Your task to perform on an android device: search for starred emails in the gmail app Image 0: 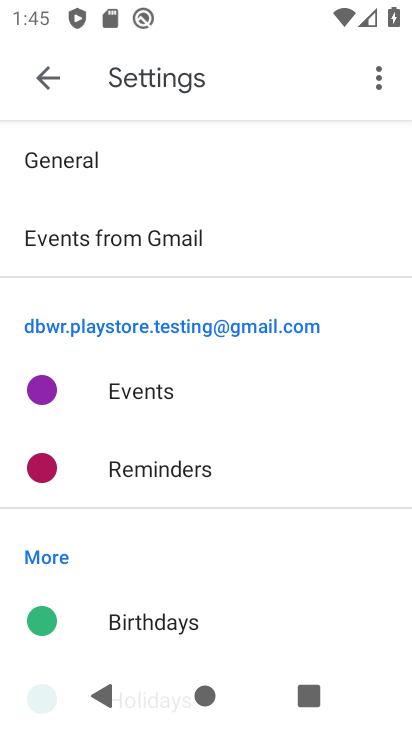
Step 0: drag from (188, 568) to (292, 219)
Your task to perform on an android device: search for starred emails in the gmail app Image 1: 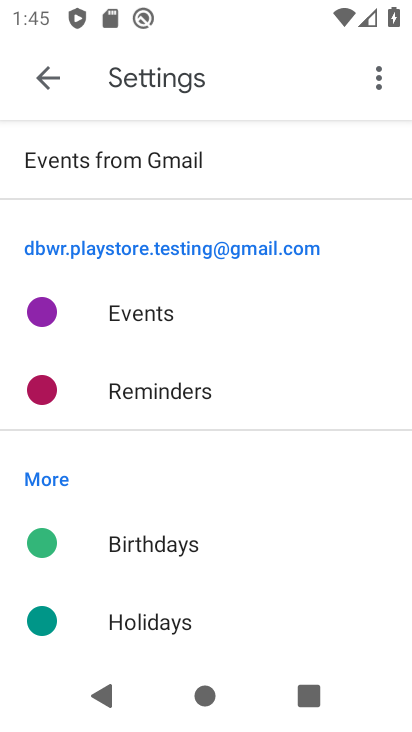
Step 1: press home button
Your task to perform on an android device: search for starred emails in the gmail app Image 2: 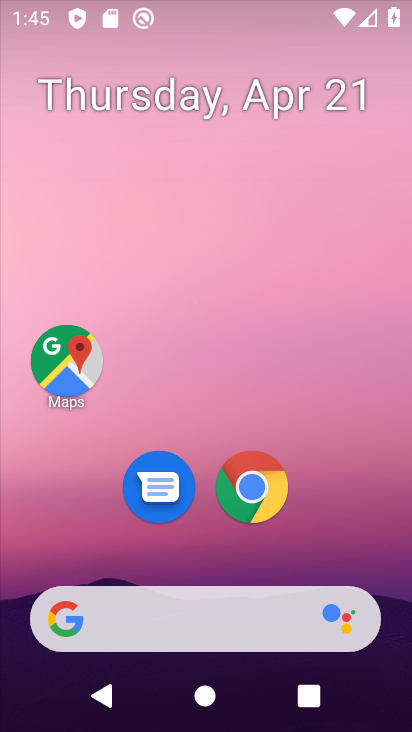
Step 2: drag from (190, 540) to (230, 183)
Your task to perform on an android device: search for starred emails in the gmail app Image 3: 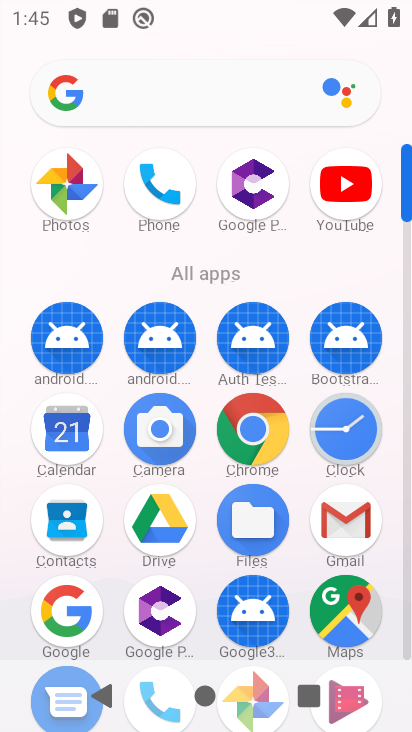
Step 3: click (352, 520)
Your task to perform on an android device: search for starred emails in the gmail app Image 4: 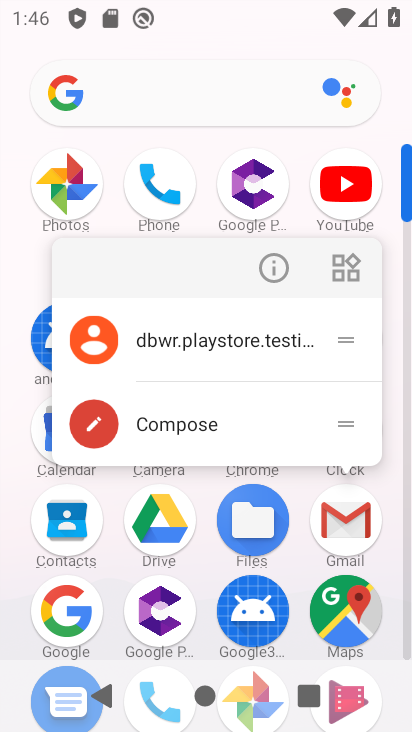
Step 4: click (290, 274)
Your task to perform on an android device: search for starred emails in the gmail app Image 5: 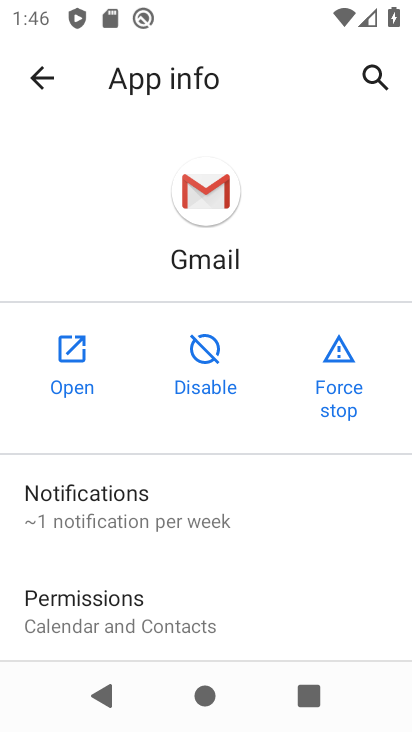
Step 5: click (75, 371)
Your task to perform on an android device: search for starred emails in the gmail app Image 6: 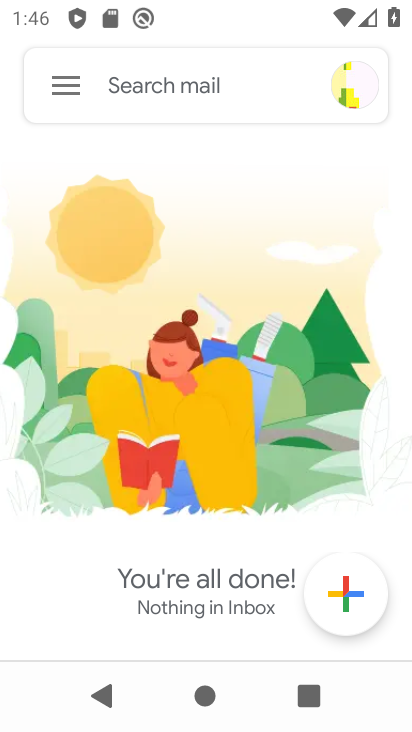
Step 6: click (69, 80)
Your task to perform on an android device: search for starred emails in the gmail app Image 7: 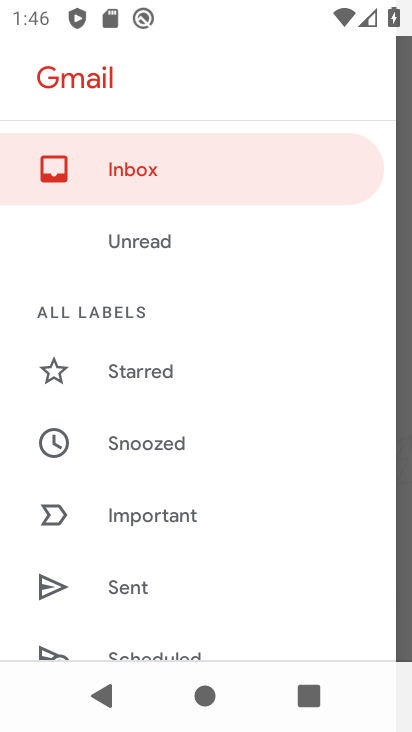
Step 7: drag from (201, 504) to (224, 170)
Your task to perform on an android device: search for starred emails in the gmail app Image 8: 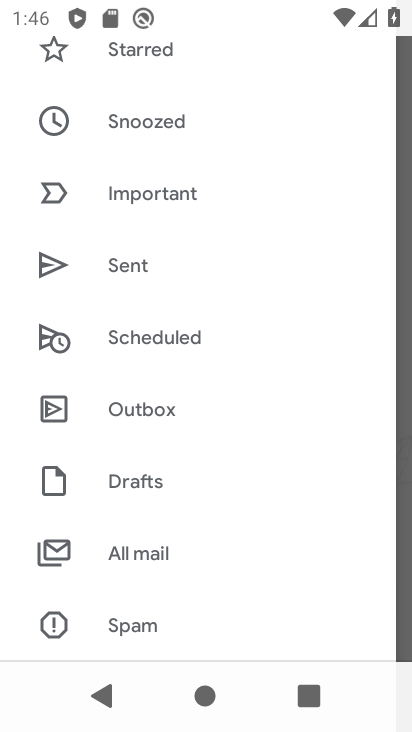
Step 8: click (144, 64)
Your task to perform on an android device: search for starred emails in the gmail app Image 9: 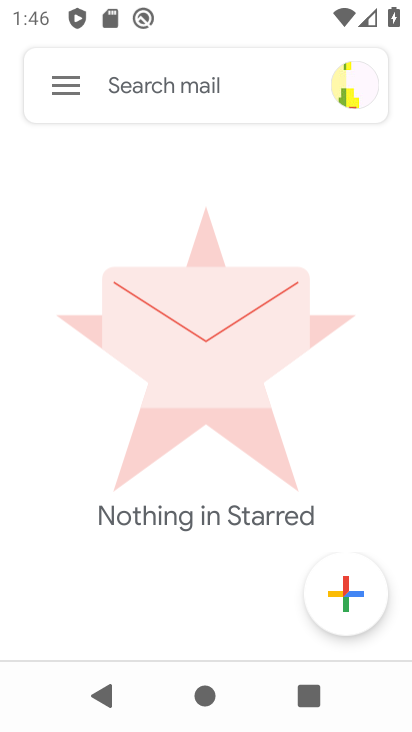
Step 9: task complete